Your task to perform on an android device: check storage Image 0: 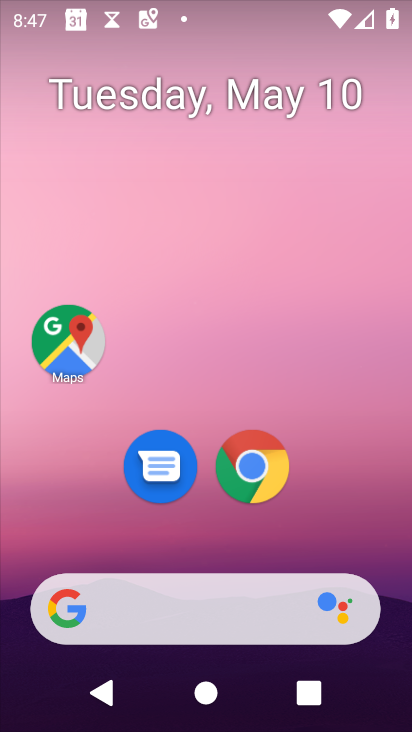
Step 0: drag from (324, 538) to (394, 50)
Your task to perform on an android device: check storage Image 1: 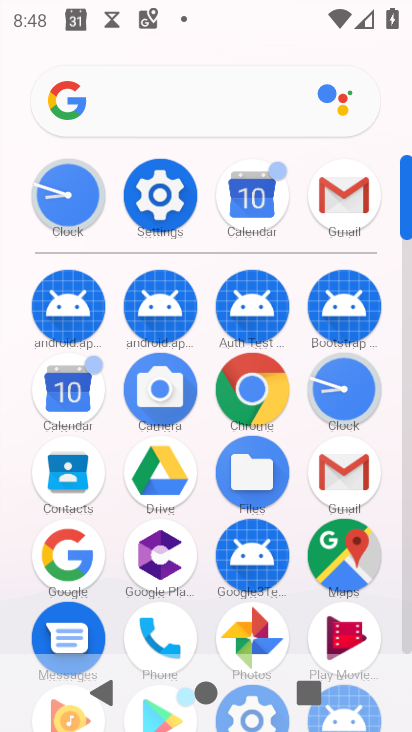
Step 1: click (161, 186)
Your task to perform on an android device: check storage Image 2: 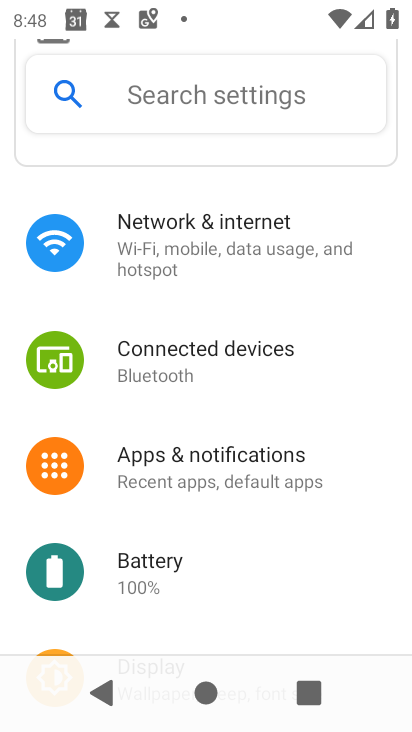
Step 2: drag from (210, 590) to (222, 448)
Your task to perform on an android device: check storage Image 3: 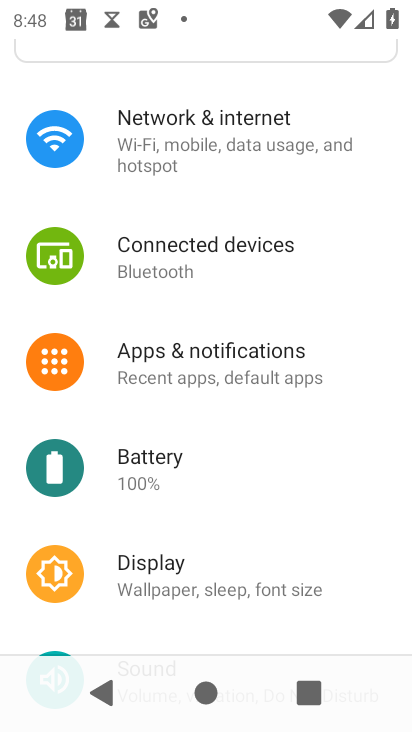
Step 3: drag from (213, 589) to (236, 485)
Your task to perform on an android device: check storage Image 4: 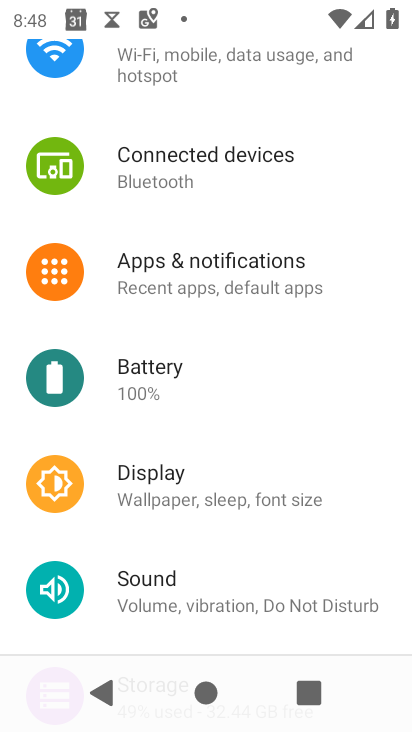
Step 4: drag from (244, 587) to (293, 450)
Your task to perform on an android device: check storage Image 5: 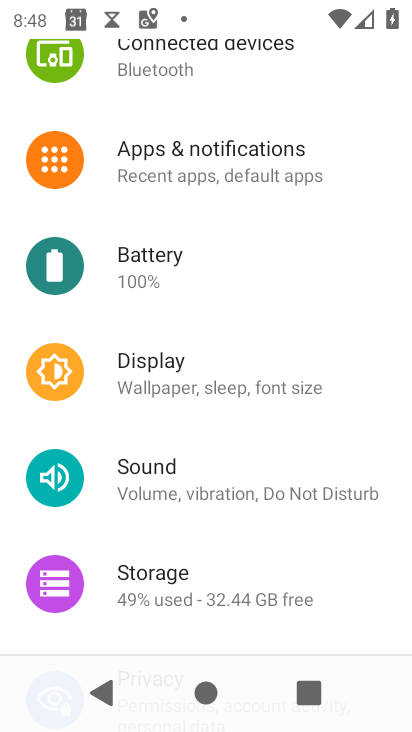
Step 5: drag from (269, 554) to (326, 400)
Your task to perform on an android device: check storage Image 6: 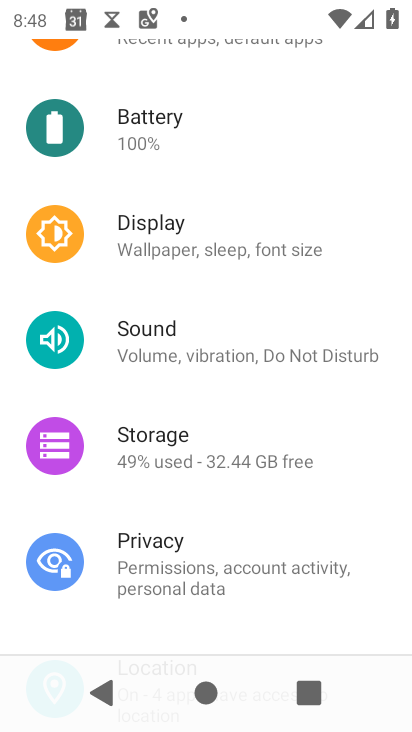
Step 6: drag from (265, 589) to (288, 493)
Your task to perform on an android device: check storage Image 7: 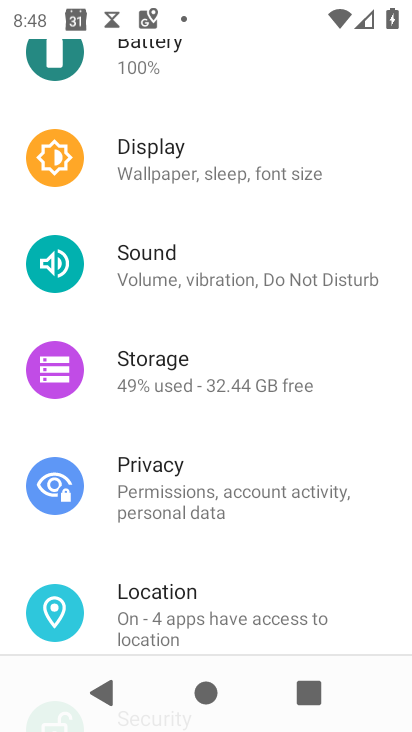
Step 7: click (282, 371)
Your task to perform on an android device: check storage Image 8: 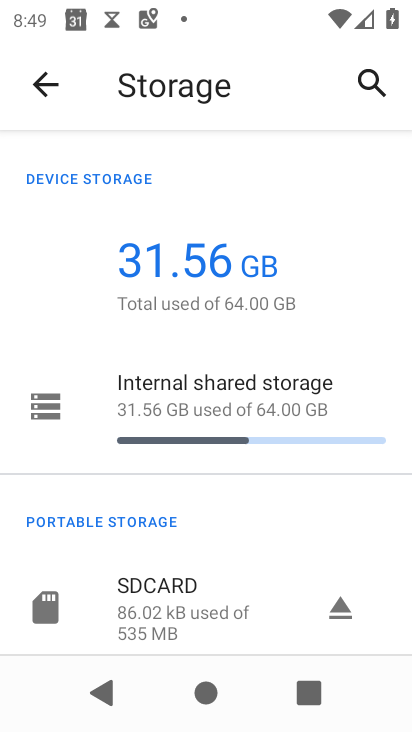
Step 8: task complete